Your task to perform on an android device: toggle notifications settings in the gmail app Image 0: 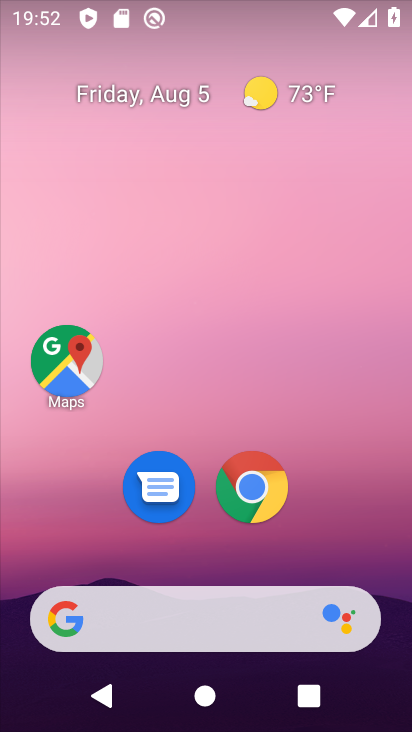
Step 0: drag from (225, 609) to (356, 214)
Your task to perform on an android device: toggle notifications settings in the gmail app Image 1: 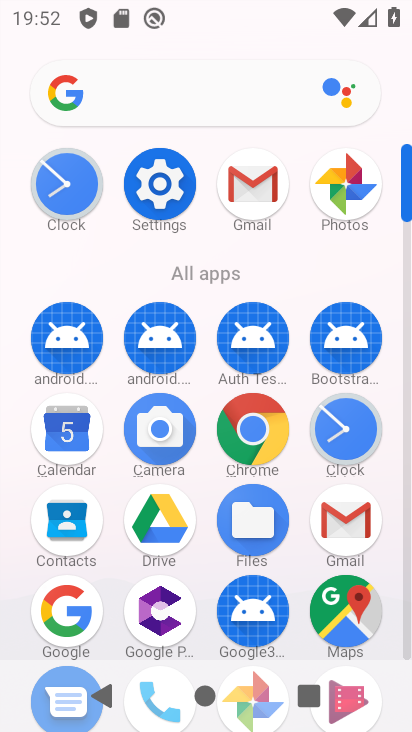
Step 1: click (251, 193)
Your task to perform on an android device: toggle notifications settings in the gmail app Image 2: 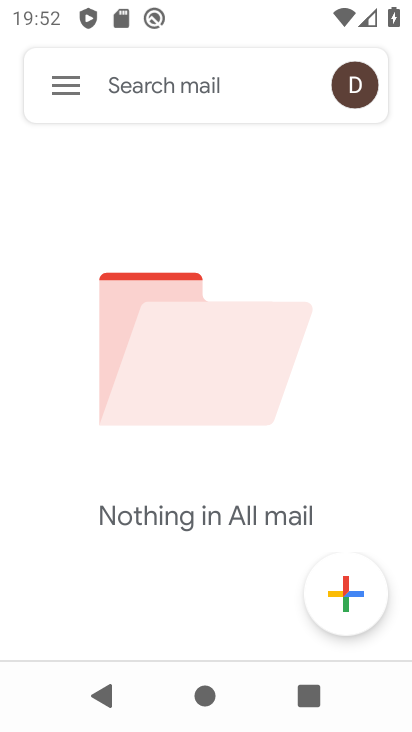
Step 2: click (66, 85)
Your task to perform on an android device: toggle notifications settings in the gmail app Image 3: 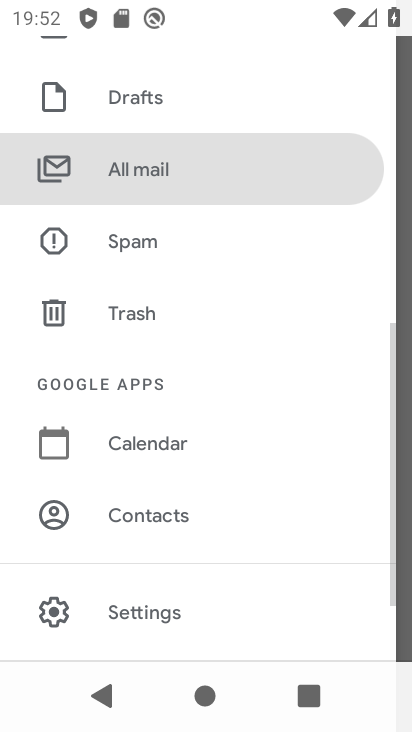
Step 3: drag from (209, 600) to (339, 74)
Your task to perform on an android device: toggle notifications settings in the gmail app Image 4: 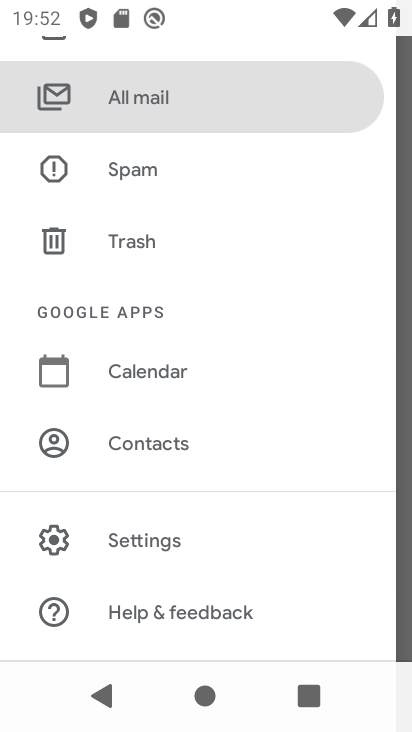
Step 4: click (161, 541)
Your task to perform on an android device: toggle notifications settings in the gmail app Image 5: 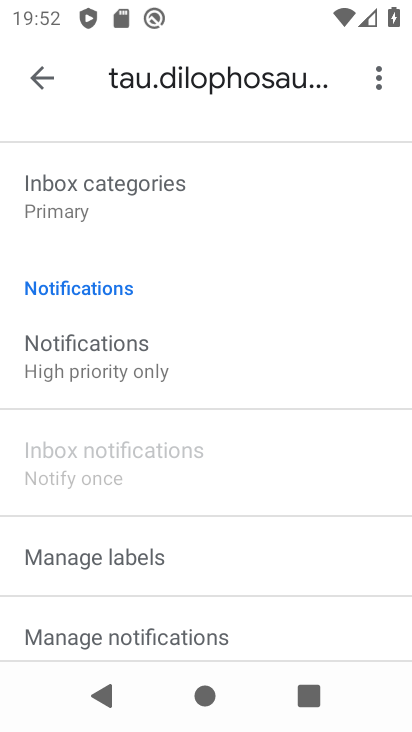
Step 5: click (88, 355)
Your task to perform on an android device: toggle notifications settings in the gmail app Image 6: 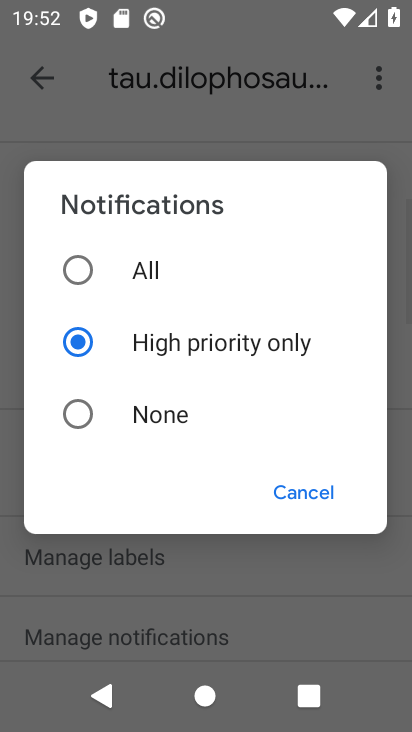
Step 6: click (76, 263)
Your task to perform on an android device: toggle notifications settings in the gmail app Image 7: 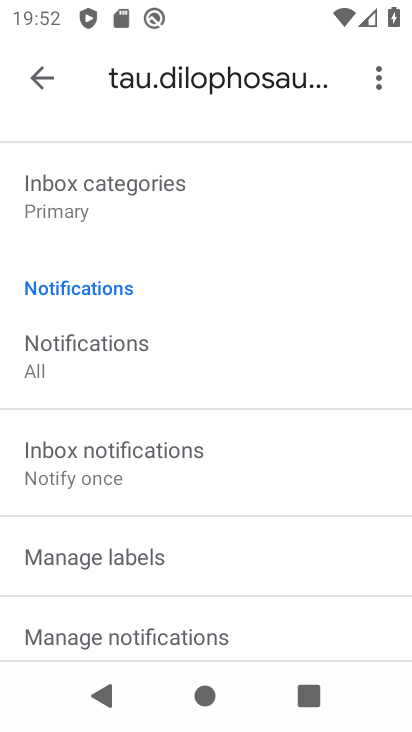
Step 7: task complete